Your task to perform on an android device: Check the weather Image 0: 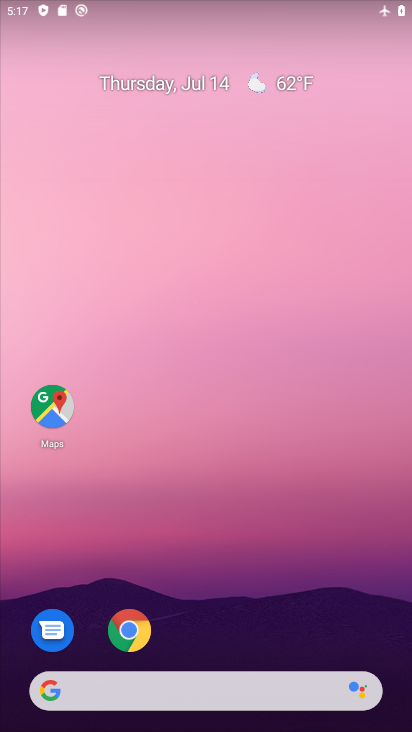
Step 0: click (217, 674)
Your task to perform on an android device: Check the weather Image 1: 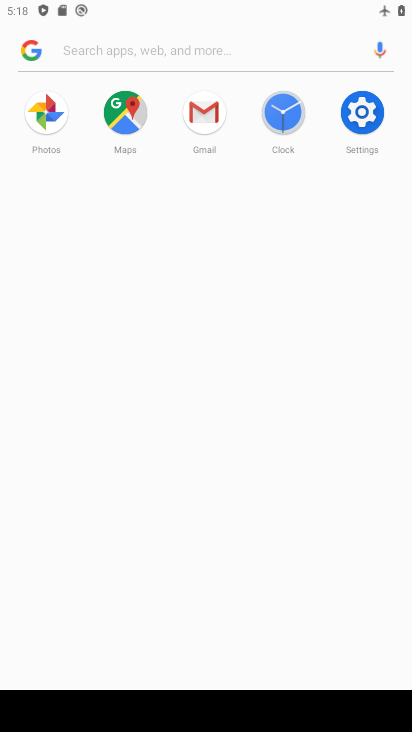
Step 1: type "weather"
Your task to perform on an android device: Check the weather Image 2: 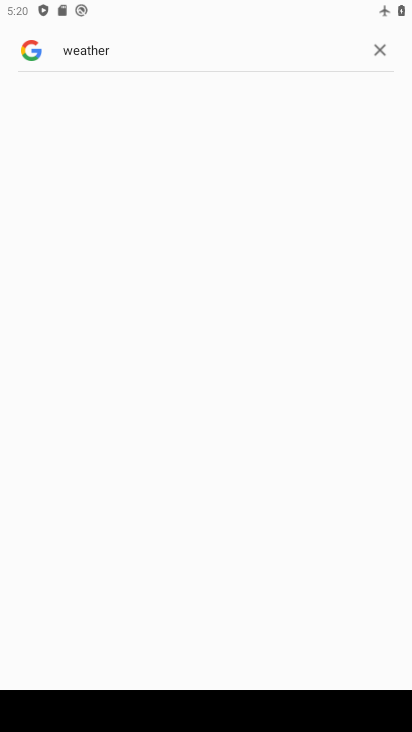
Step 2: click (190, 187)
Your task to perform on an android device: Check the weather Image 3: 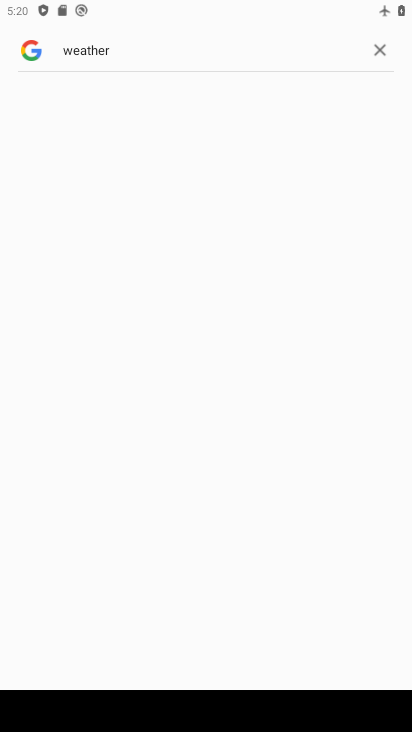
Step 3: click (190, 187)
Your task to perform on an android device: Check the weather Image 4: 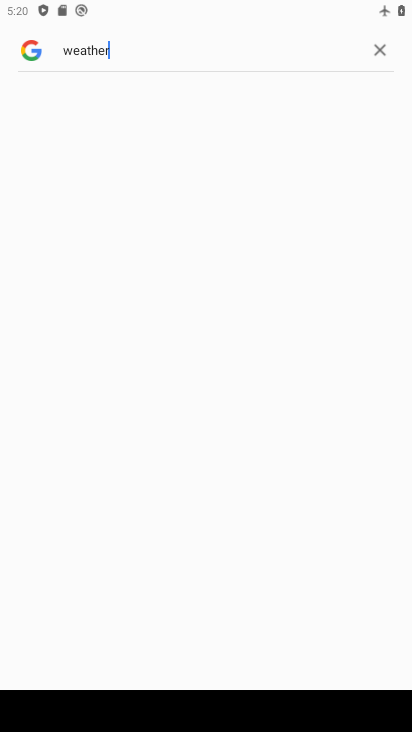
Step 4: task complete